Your task to perform on an android device: toggle javascript in the chrome app Image 0: 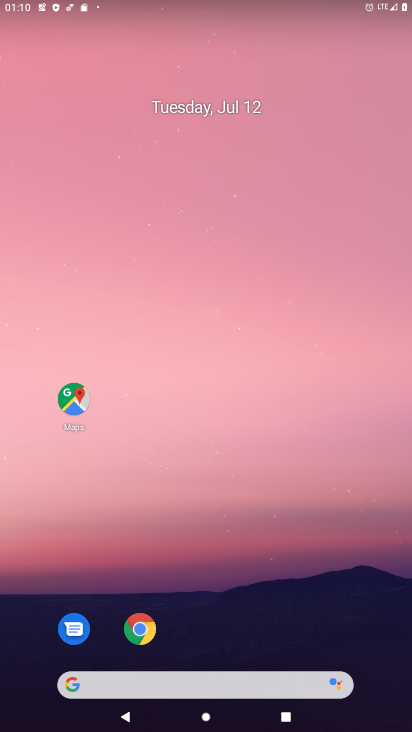
Step 0: drag from (23, 714) to (395, 73)
Your task to perform on an android device: toggle javascript in the chrome app Image 1: 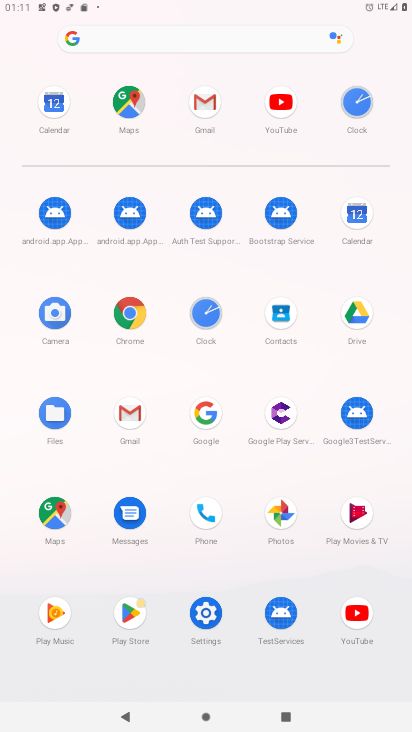
Step 1: click (114, 32)
Your task to perform on an android device: toggle javascript in the chrome app Image 2: 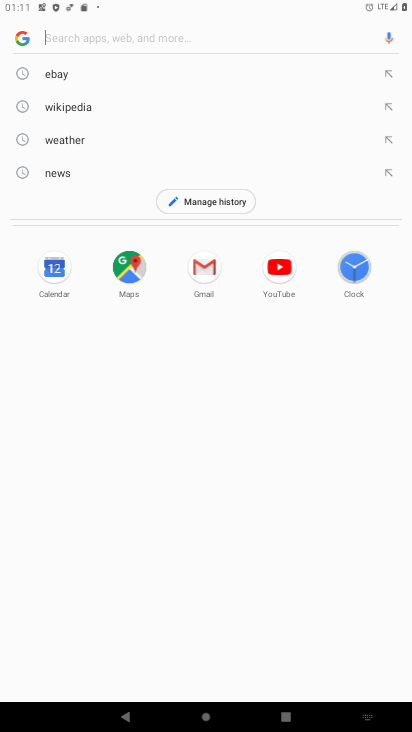
Step 2: press home button
Your task to perform on an android device: toggle javascript in the chrome app Image 3: 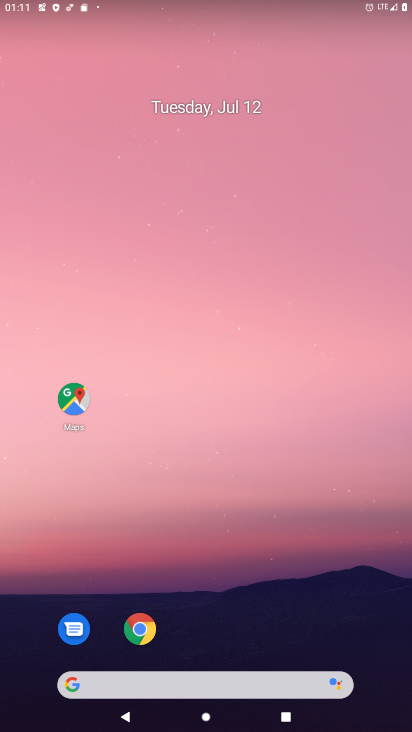
Step 3: click (158, 630)
Your task to perform on an android device: toggle javascript in the chrome app Image 4: 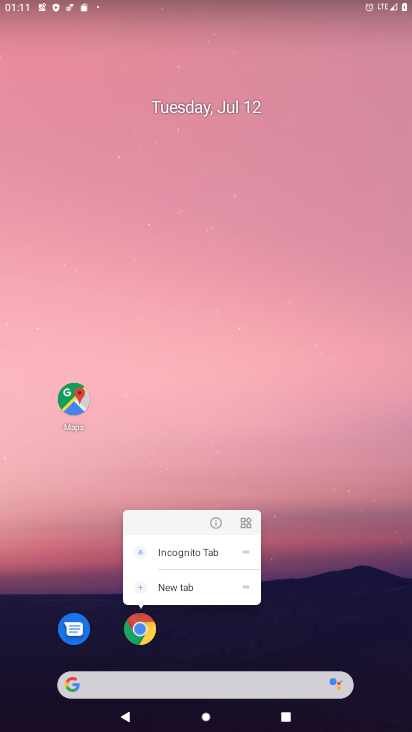
Step 4: click (141, 624)
Your task to perform on an android device: toggle javascript in the chrome app Image 5: 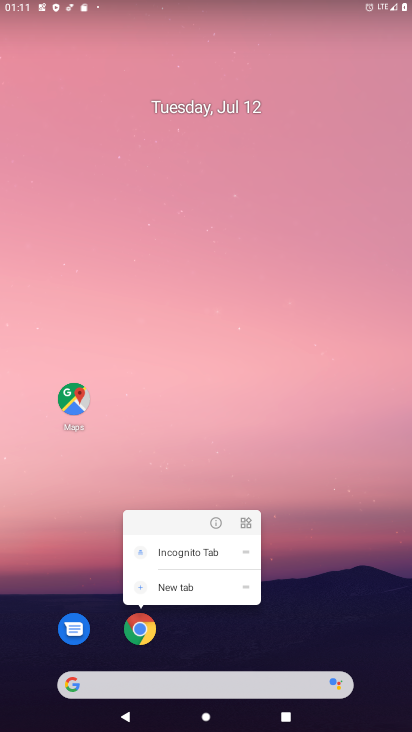
Step 5: click (131, 627)
Your task to perform on an android device: toggle javascript in the chrome app Image 6: 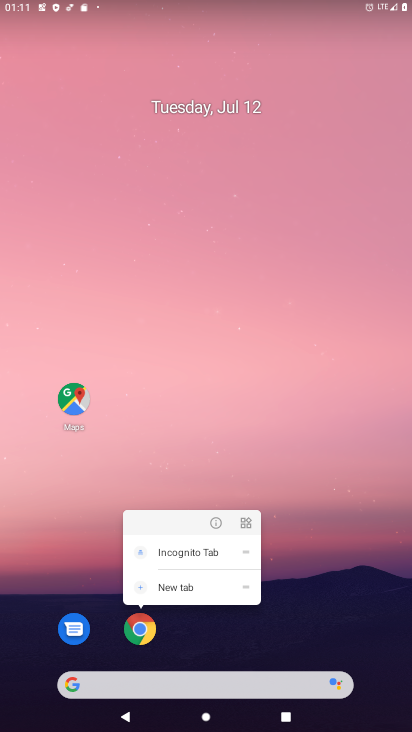
Step 6: click (141, 638)
Your task to perform on an android device: toggle javascript in the chrome app Image 7: 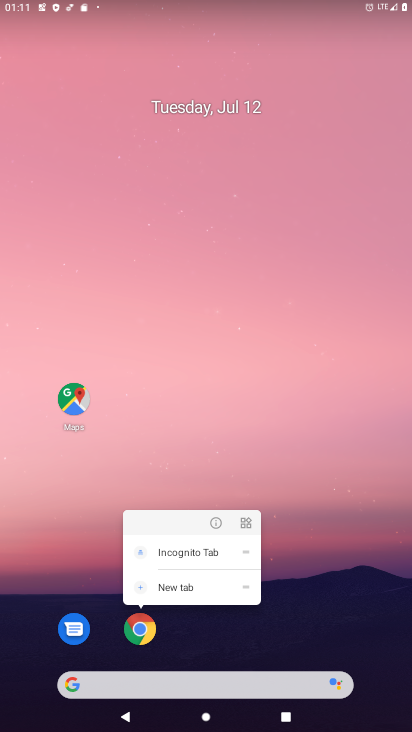
Step 7: task complete